Your task to perform on an android device: turn on the 12-hour format for clock Image 0: 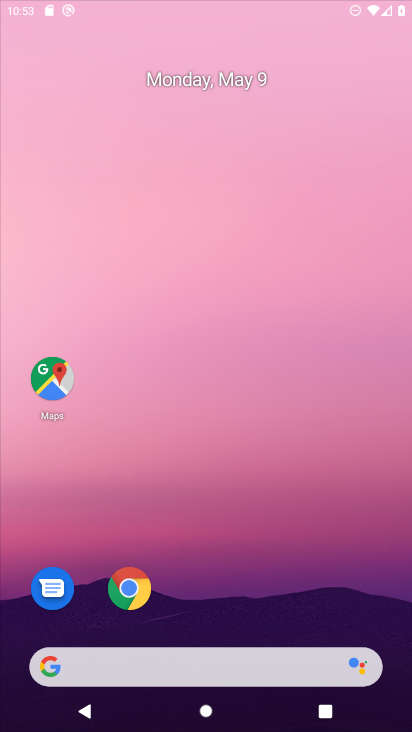
Step 0: click (146, 586)
Your task to perform on an android device: turn on the 12-hour format for clock Image 1: 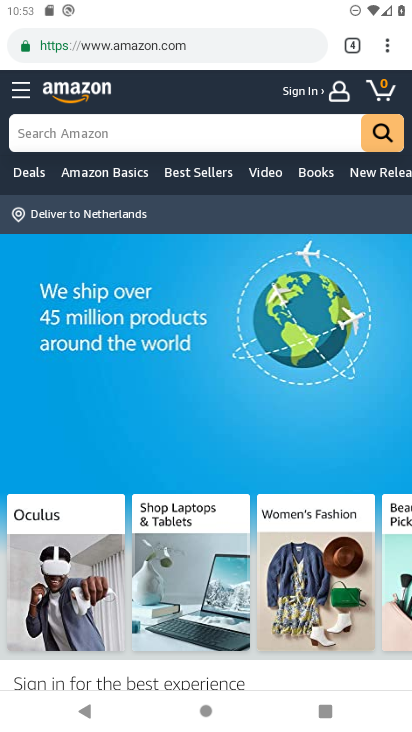
Step 1: click (379, 42)
Your task to perform on an android device: turn on the 12-hour format for clock Image 2: 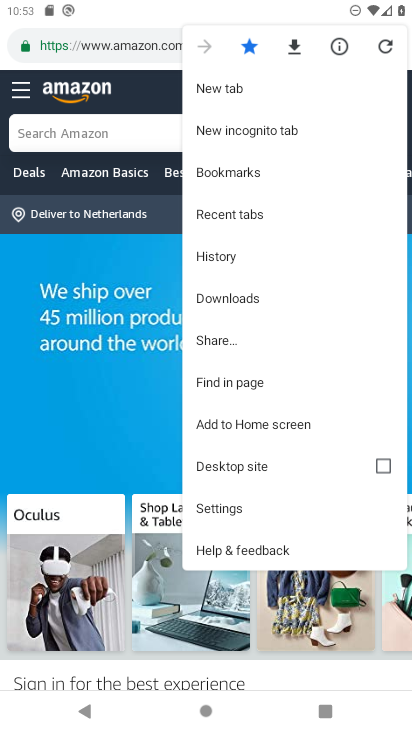
Step 2: press home button
Your task to perform on an android device: turn on the 12-hour format for clock Image 3: 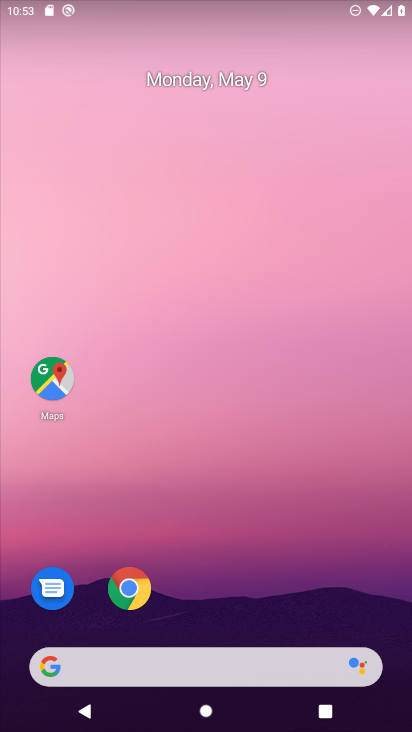
Step 3: drag from (218, 614) to (241, 27)
Your task to perform on an android device: turn on the 12-hour format for clock Image 4: 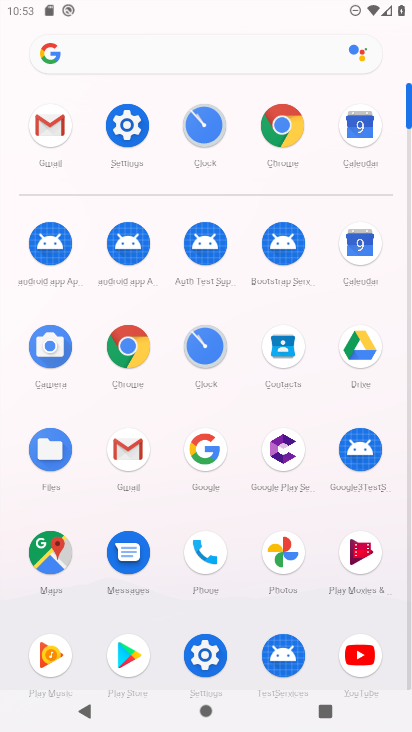
Step 4: click (205, 133)
Your task to perform on an android device: turn on the 12-hour format for clock Image 5: 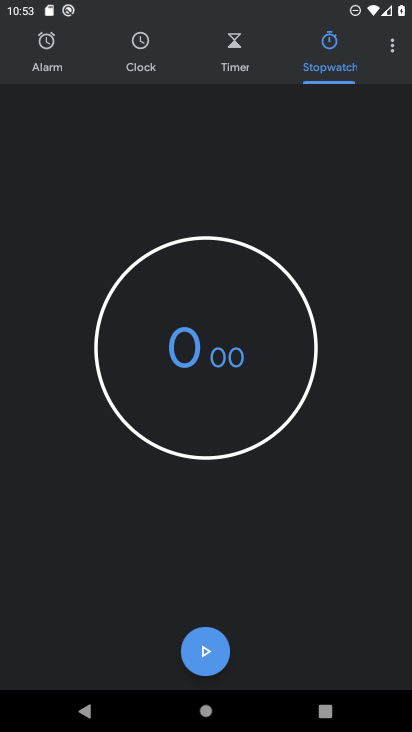
Step 5: click (390, 64)
Your task to perform on an android device: turn on the 12-hour format for clock Image 6: 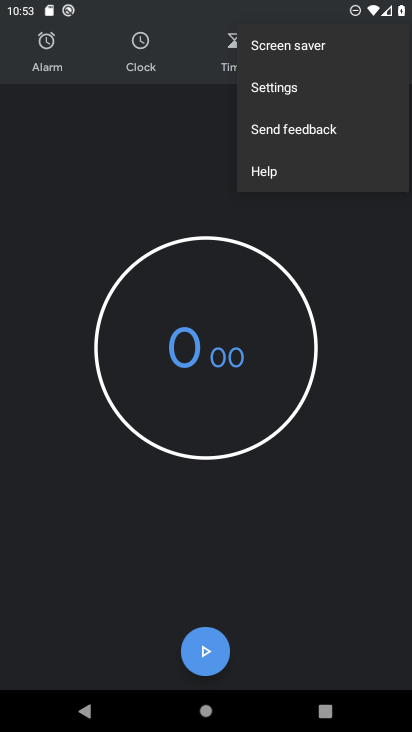
Step 6: click (293, 84)
Your task to perform on an android device: turn on the 12-hour format for clock Image 7: 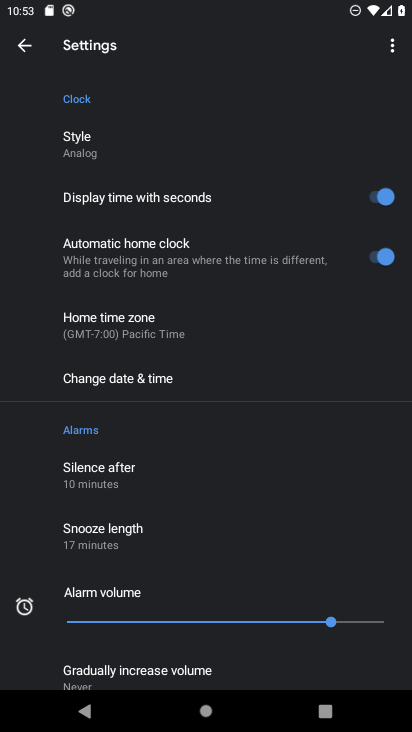
Step 7: drag from (156, 591) to (161, 190)
Your task to perform on an android device: turn on the 12-hour format for clock Image 8: 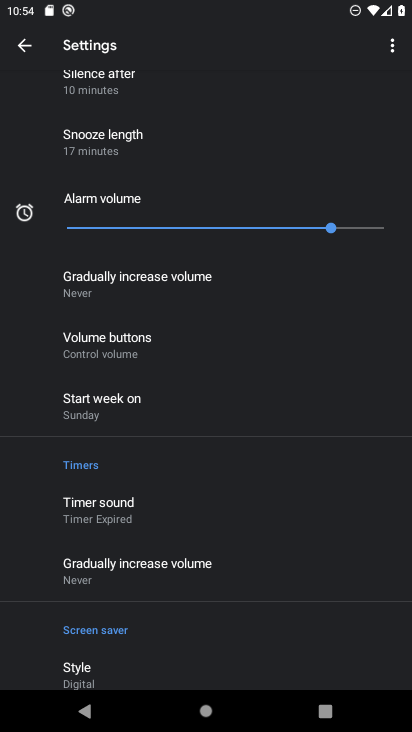
Step 8: drag from (187, 450) to (220, 594)
Your task to perform on an android device: turn on the 12-hour format for clock Image 9: 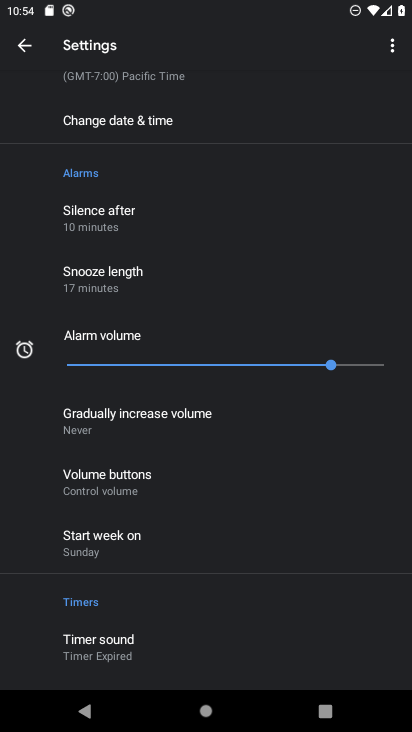
Step 9: click (151, 120)
Your task to perform on an android device: turn on the 12-hour format for clock Image 10: 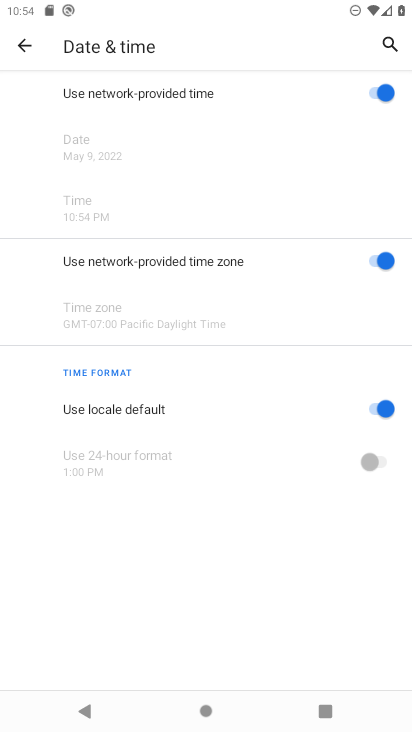
Step 10: task complete